Your task to perform on an android device: Search for macbook pro 13 inch on ebay.com, select the first entry, add it to the cart, then select checkout. Image 0: 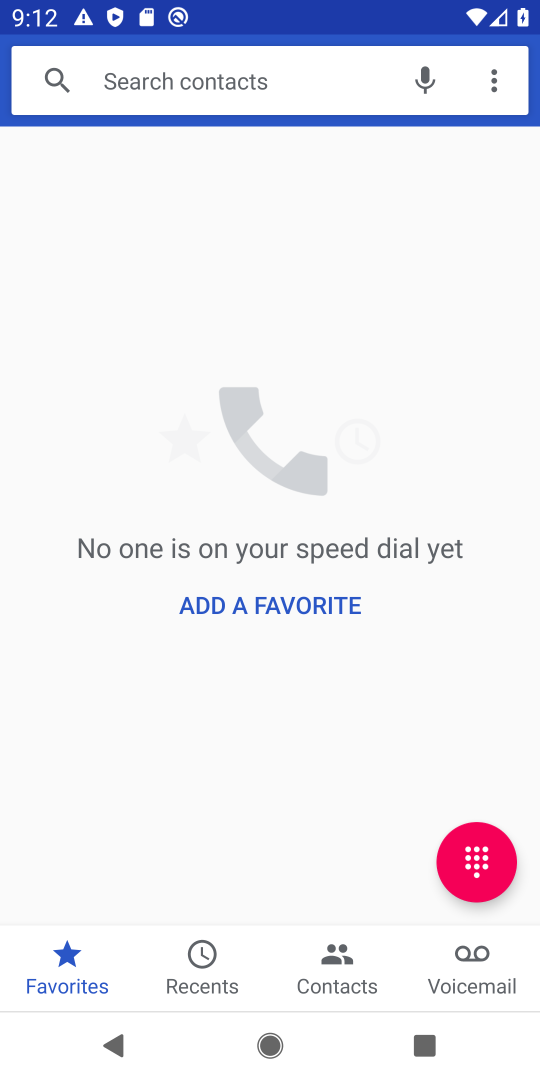
Step 0: press home button
Your task to perform on an android device: Search for macbook pro 13 inch on ebay.com, select the first entry, add it to the cart, then select checkout. Image 1: 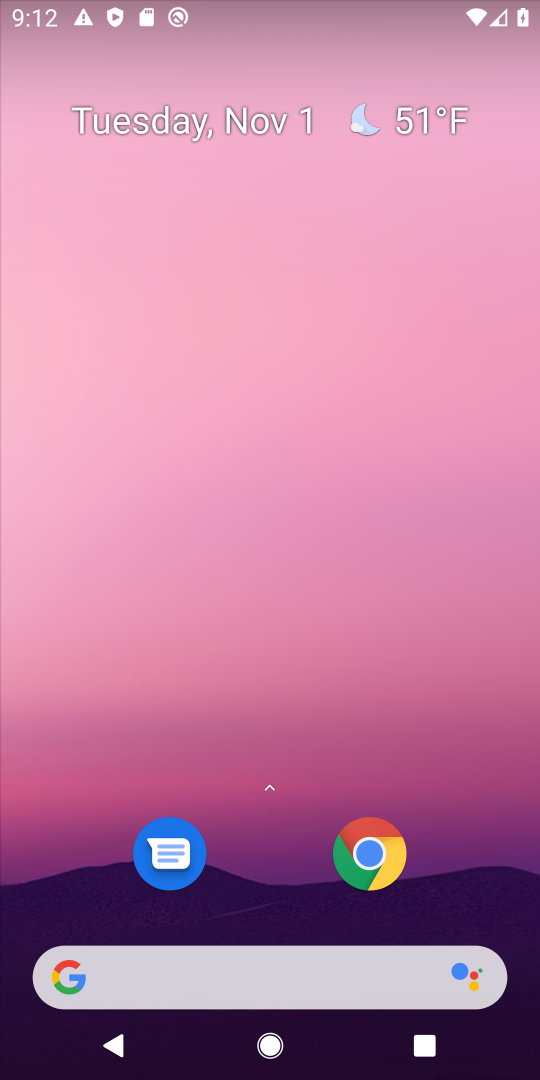
Step 1: click (182, 1001)
Your task to perform on an android device: Search for macbook pro 13 inch on ebay.com, select the first entry, add it to the cart, then select checkout. Image 2: 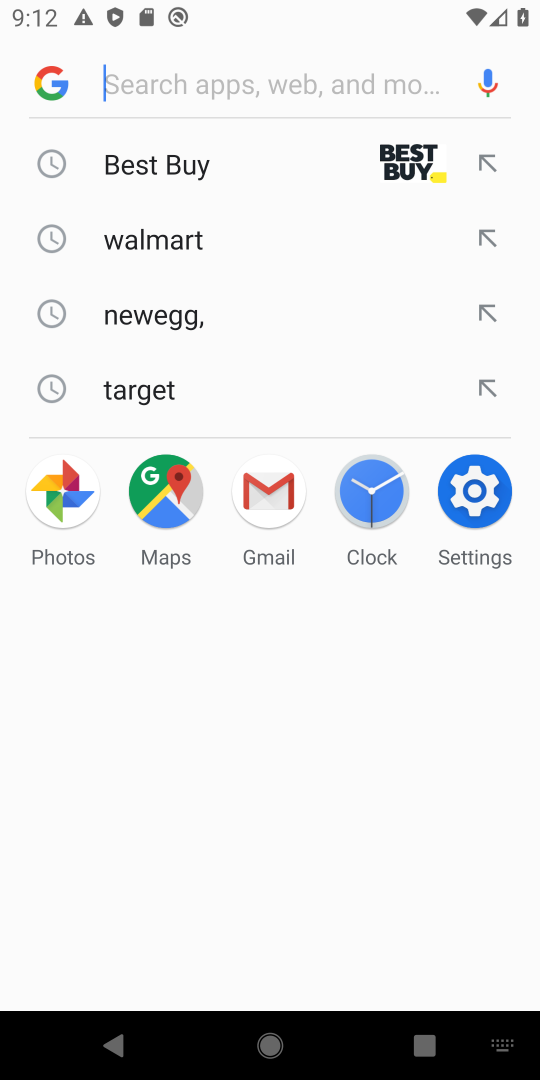
Step 2: type "ebay.com"
Your task to perform on an android device: Search for macbook pro 13 inch on ebay.com, select the first entry, add it to the cart, then select checkout. Image 3: 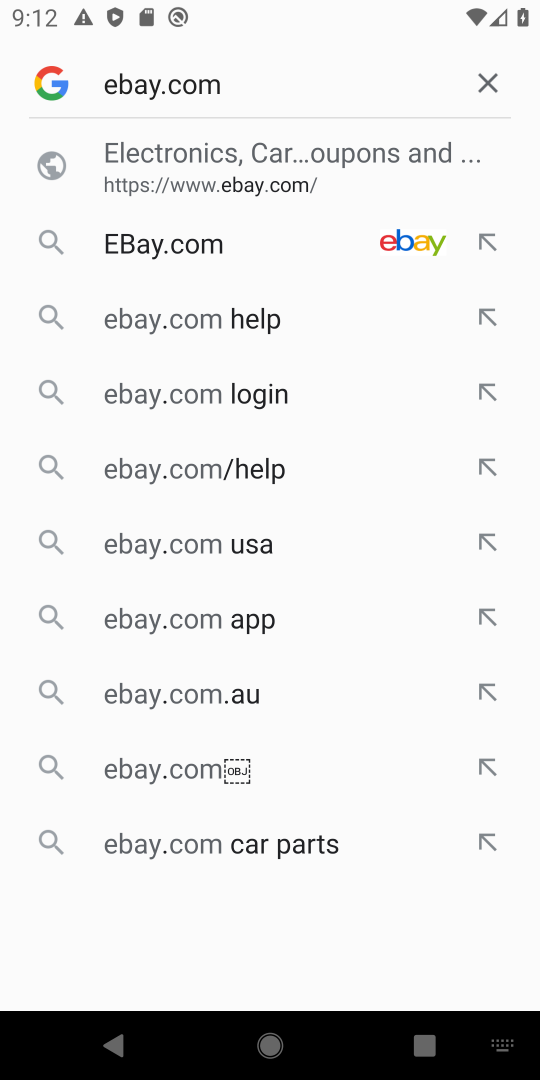
Step 3: click (232, 214)
Your task to perform on an android device: Search for macbook pro 13 inch on ebay.com, select the first entry, add it to the cart, then select checkout. Image 4: 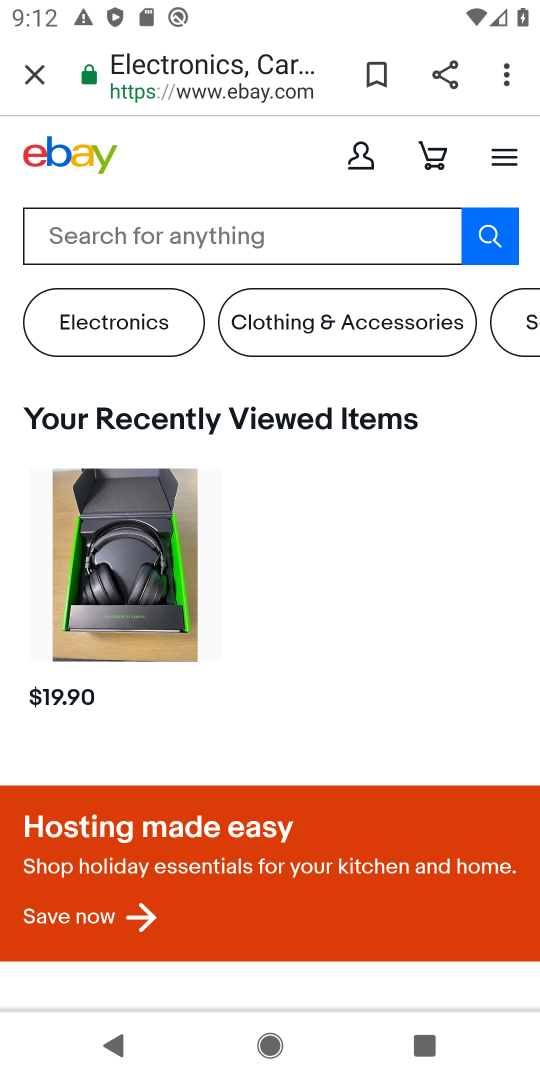
Step 4: click (218, 223)
Your task to perform on an android device: Search for macbook pro 13 inch on ebay.com, select the first entry, add it to the cart, then select checkout. Image 5: 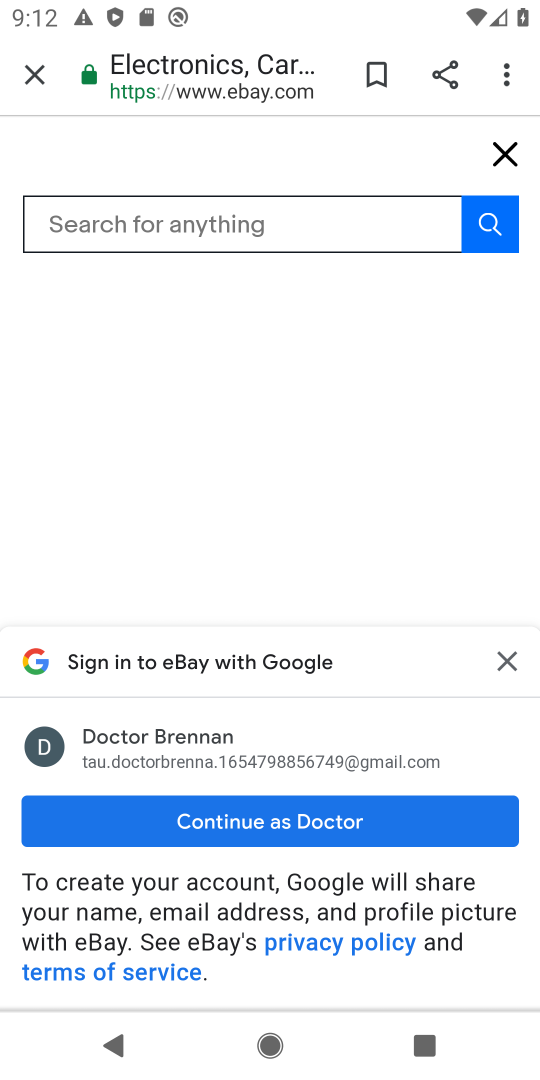
Step 5: type "macbook pro 13"
Your task to perform on an android device: Search for macbook pro 13 inch on ebay.com, select the first entry, add it to the cart, then select checkout. Image 6: 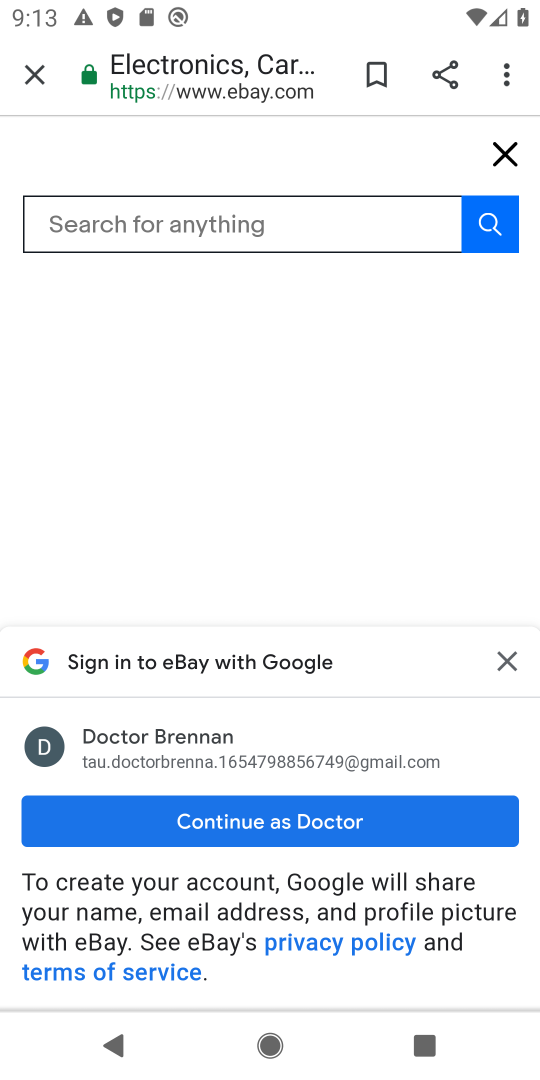
Step 6: click (413, 824)
Your task to perform on an android device: Search for macbook pro 13 inch on ebay.com, select the first entry, add it to the cart, then select checkout. Image 7: 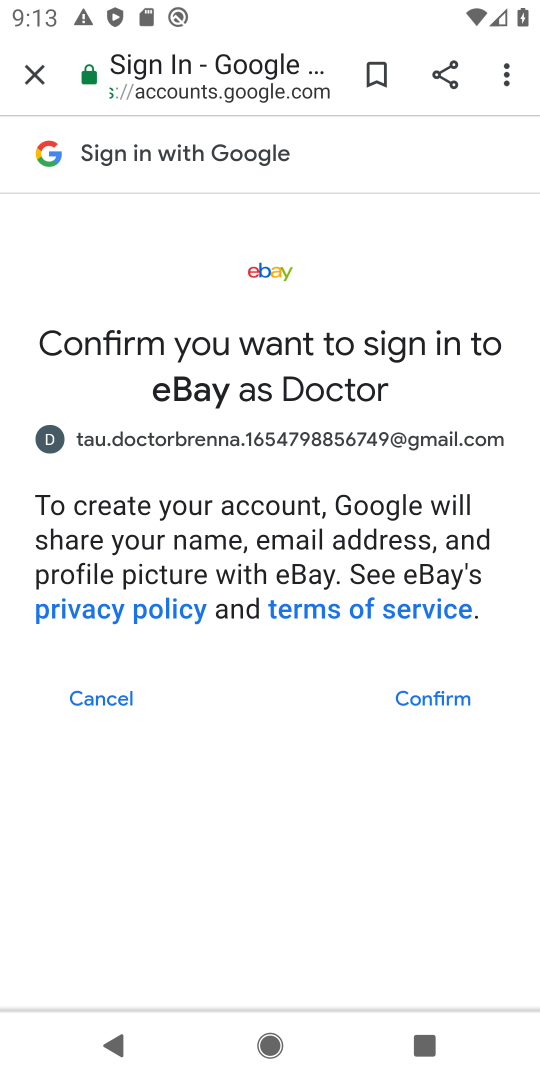
Step 7: click (427, 691)
Your task to perform on an android device: Search for macbook pro 13 inch on ebay.com, select the first entry, add it to the cart, then select checkout. Image 8: 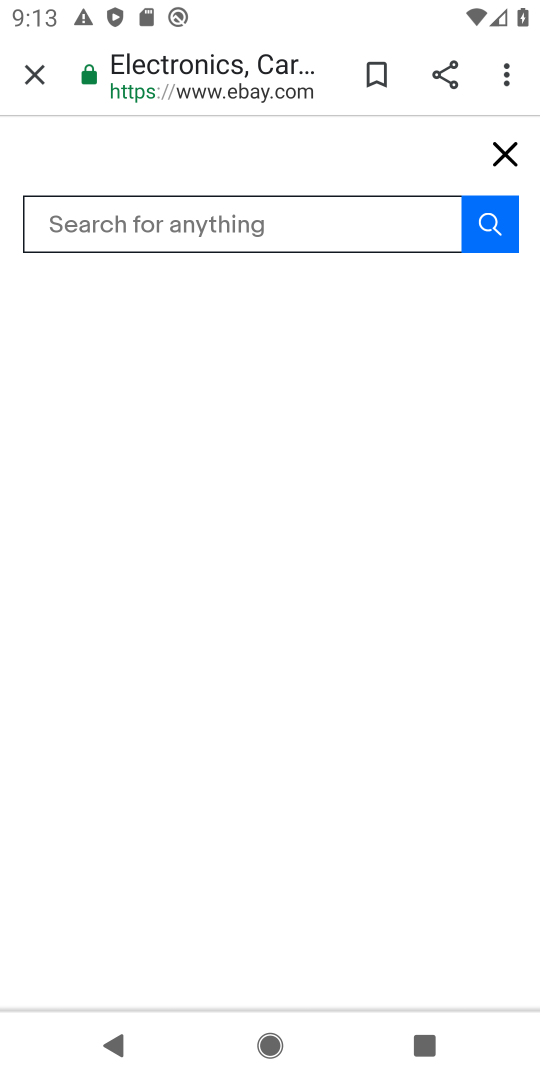
Step 8: click (272, 220)
Your task to perform on an android device: Search for macbook pro 13 inch on ebay.com, select the first entry, add it to the cart, then select checkout. Image 9: 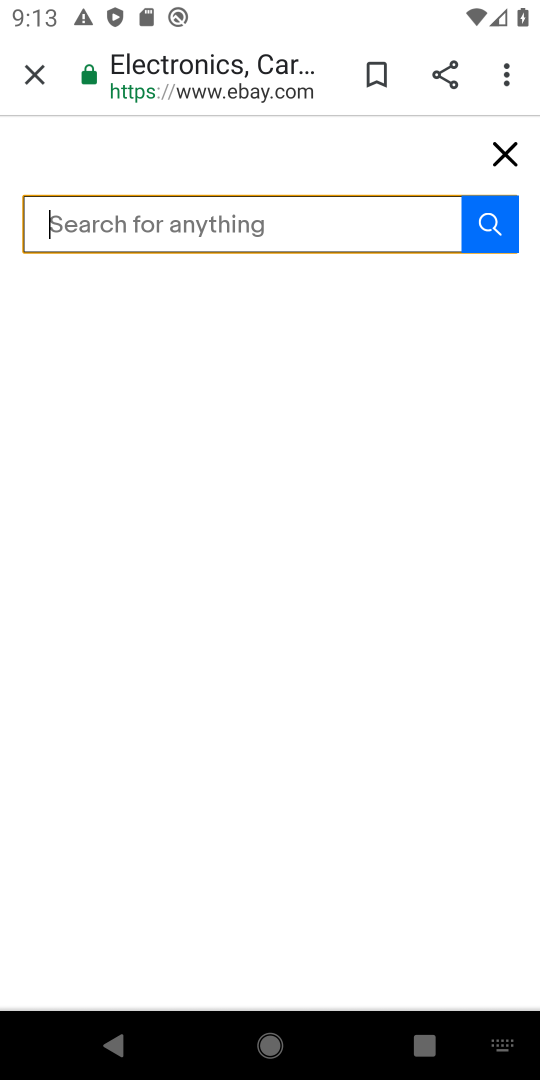
Step 9: type "macbook pro13"
Your task to perform on an android device: Search for macbook pro 13 inch on ebay.com, select the first entry, add it to the cart, then select checkout. Image 10: 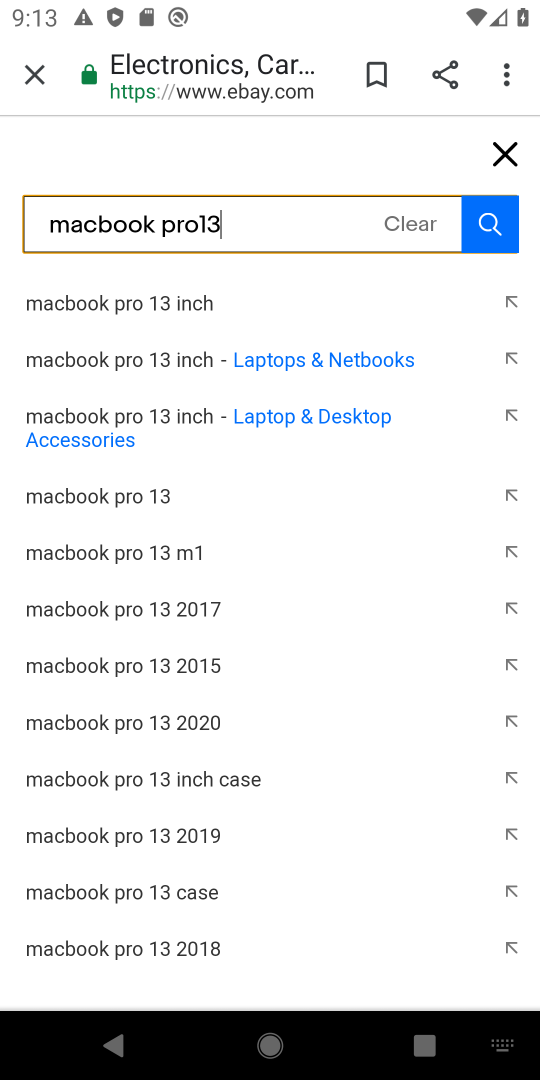
Step 10: click (159, 321)
Your task to perform on an android device: Search for macbook pro 13 inch on ebay.com, select the first entry, add it to the cart, then select checkout. Image 11: 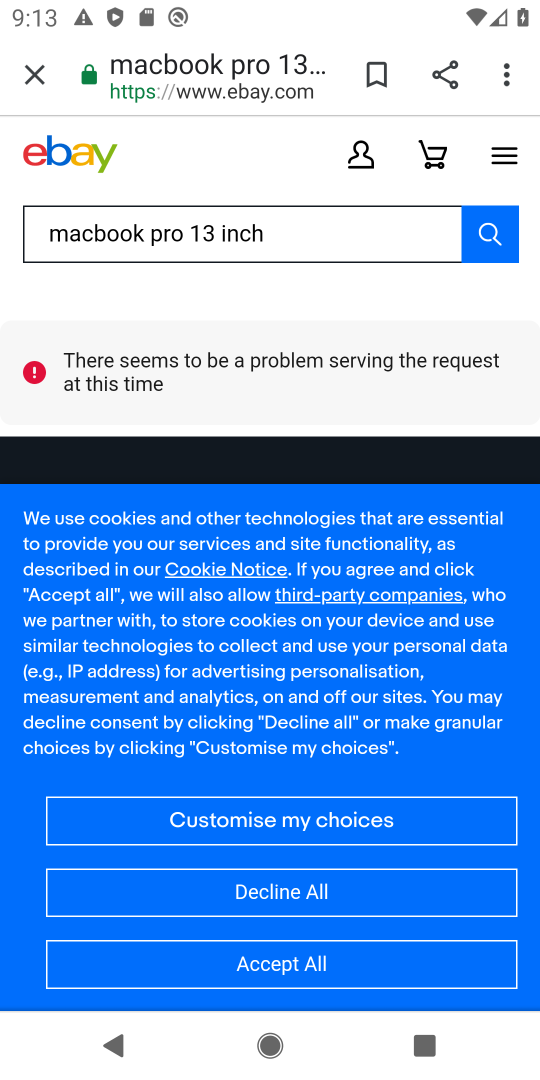
Step 11: task complete